Your task to perform on an android device: find which apps use the phone's location Image 0: 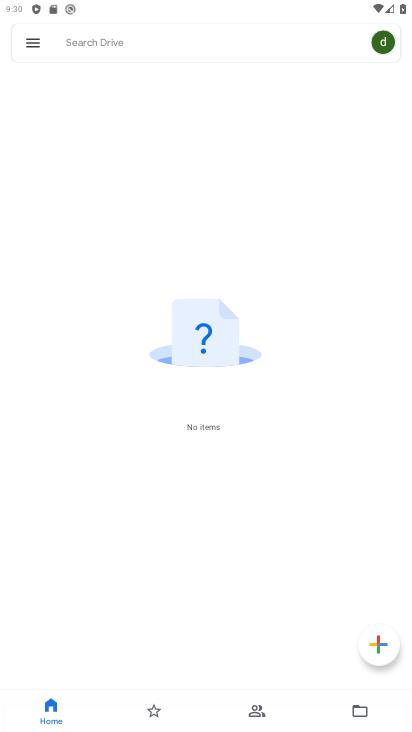
Step 0: press home button
Your task to perform on an android device: find which apps use the phone's location Image 1: 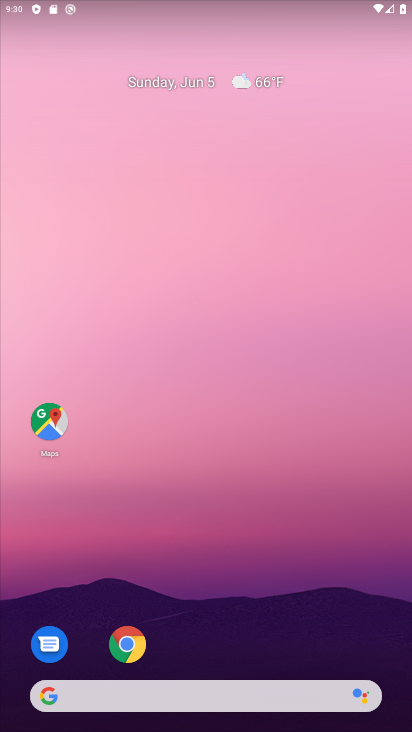
Step 1: drag from (220, 651) to (311, 8)
Your task to perform on an android device: find which apps use the phone's location Image 2: 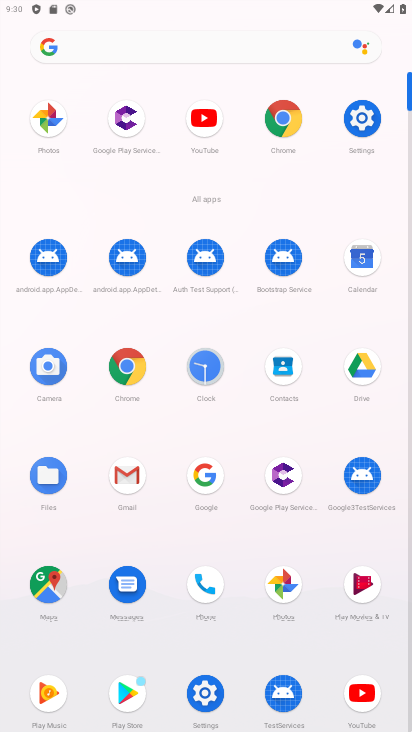
Step 2: click (208, 693)
Your task to perform on an android device: find which apps use the phone's location Image 3: 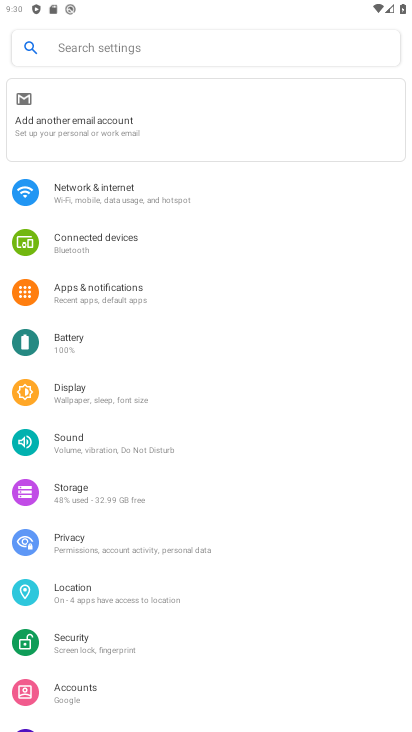
Step 3: click (114, 596)
Your task to perform on an android device: find which apps use the phone's location Image 4: 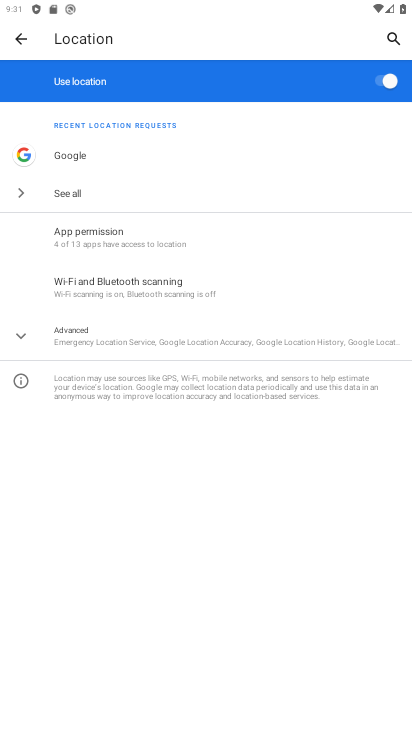
Step 4: click (100, 245)
Your task to perform on an android device: find which apps use the phone's location Image 5: 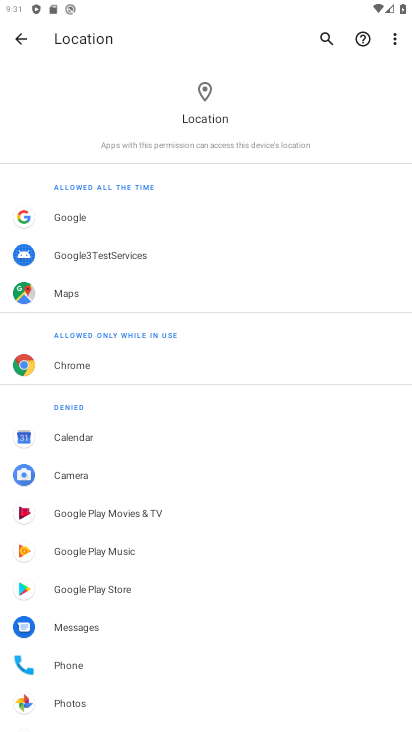
Step 5: task complete